Your task to perform on an android device: turn off wifi Image 0: 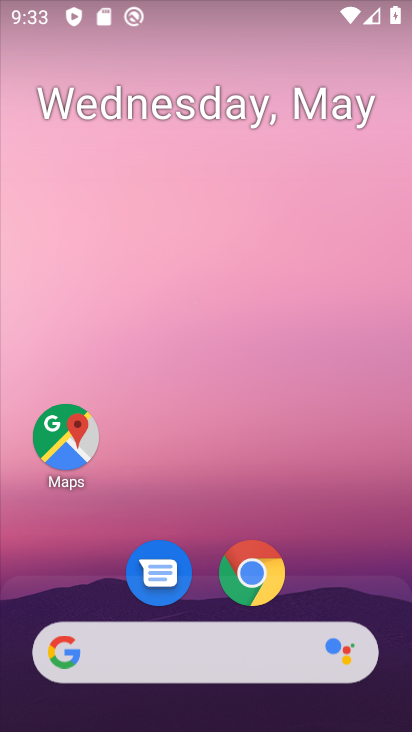
Step 0: drag from (317, 479) to (273, 186)
Your task to perform on an android device: turn off wifi Image 1: 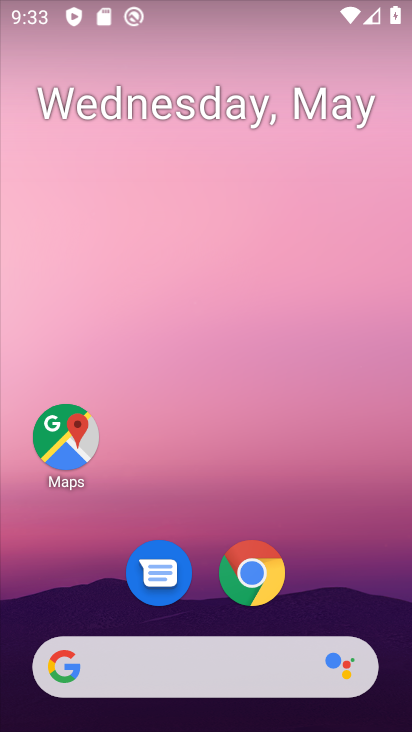
Step 1: drag from (347, 433) to (318, 110)
Your task to perform on an android device: turn off wifi Image 2: 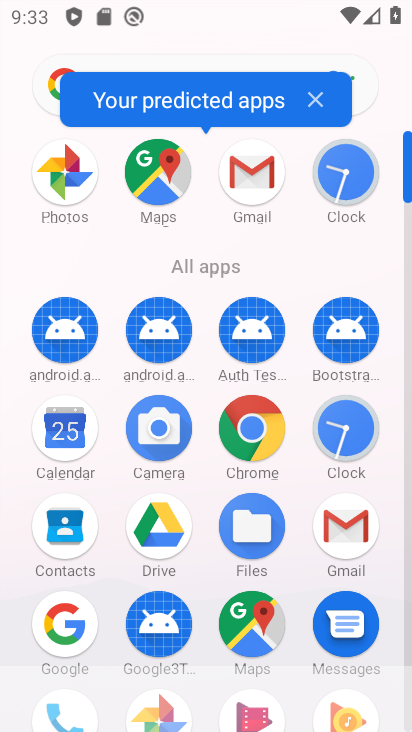
Step 2: drag from (391, 686) to (335, 218)
Your task to perform on an android device: turn off wifi Image 3: 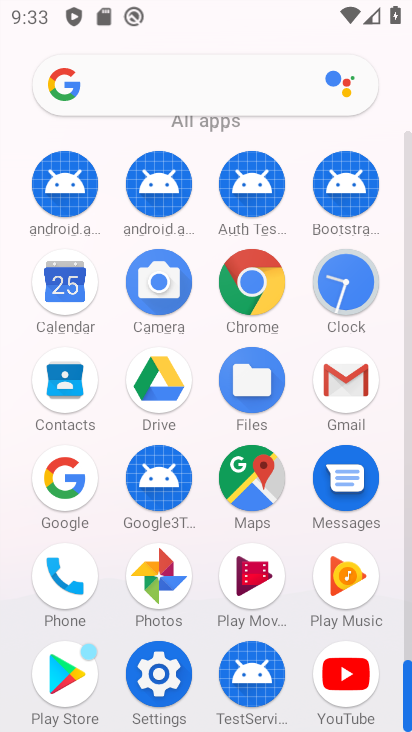
Step 3: click (150, 679)
Your task to perform on an android device: turn off wifi Image 4: 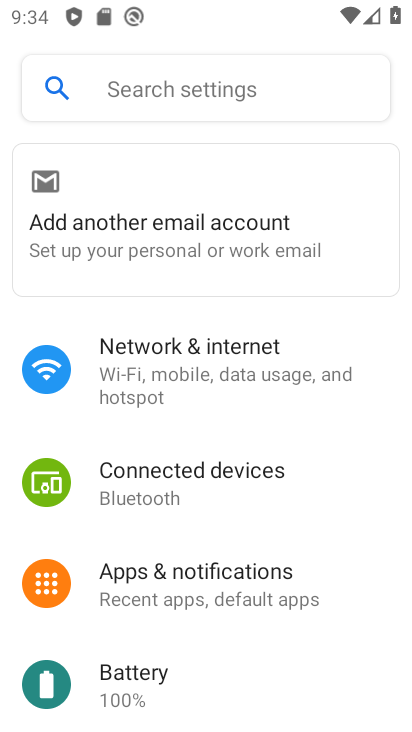
Step 4: click (193, 375)
Your task to perform on an android device: turn off wifi Image 5: 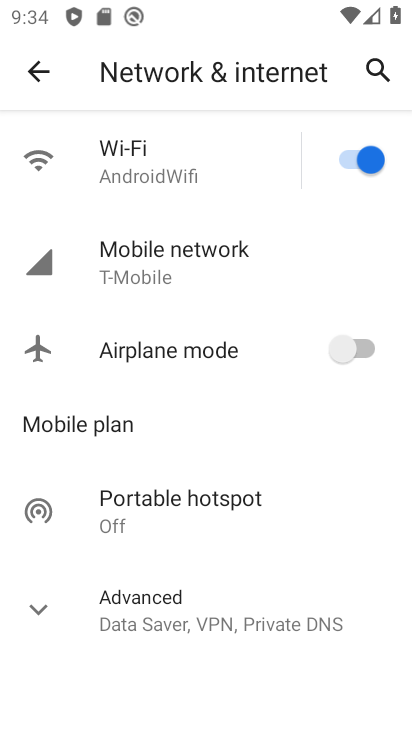
Step 5: click (352, 160)
Your task to perform on an android device: turn off wifi Image 6: 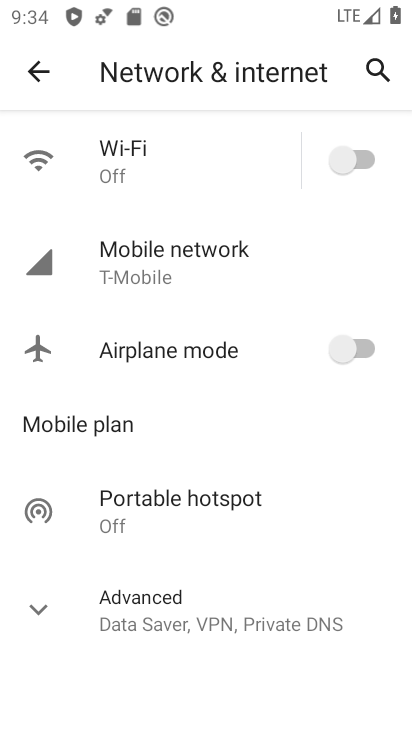
Step 6: task complete